Your task to perform on an android device: Go to privacy settings Image 0: 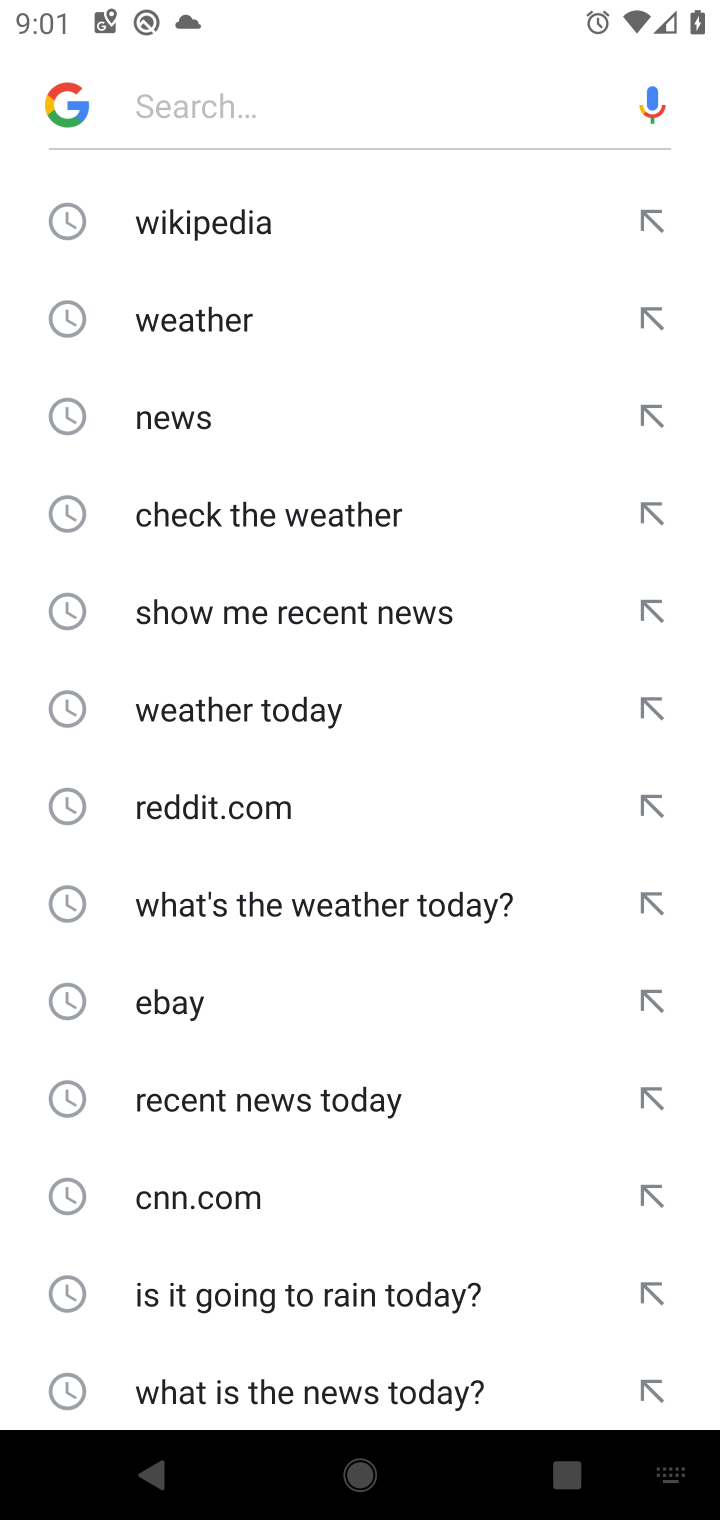
Step 0: press home button
Your task to perform on an android device: Go to privacy settings Image 1: 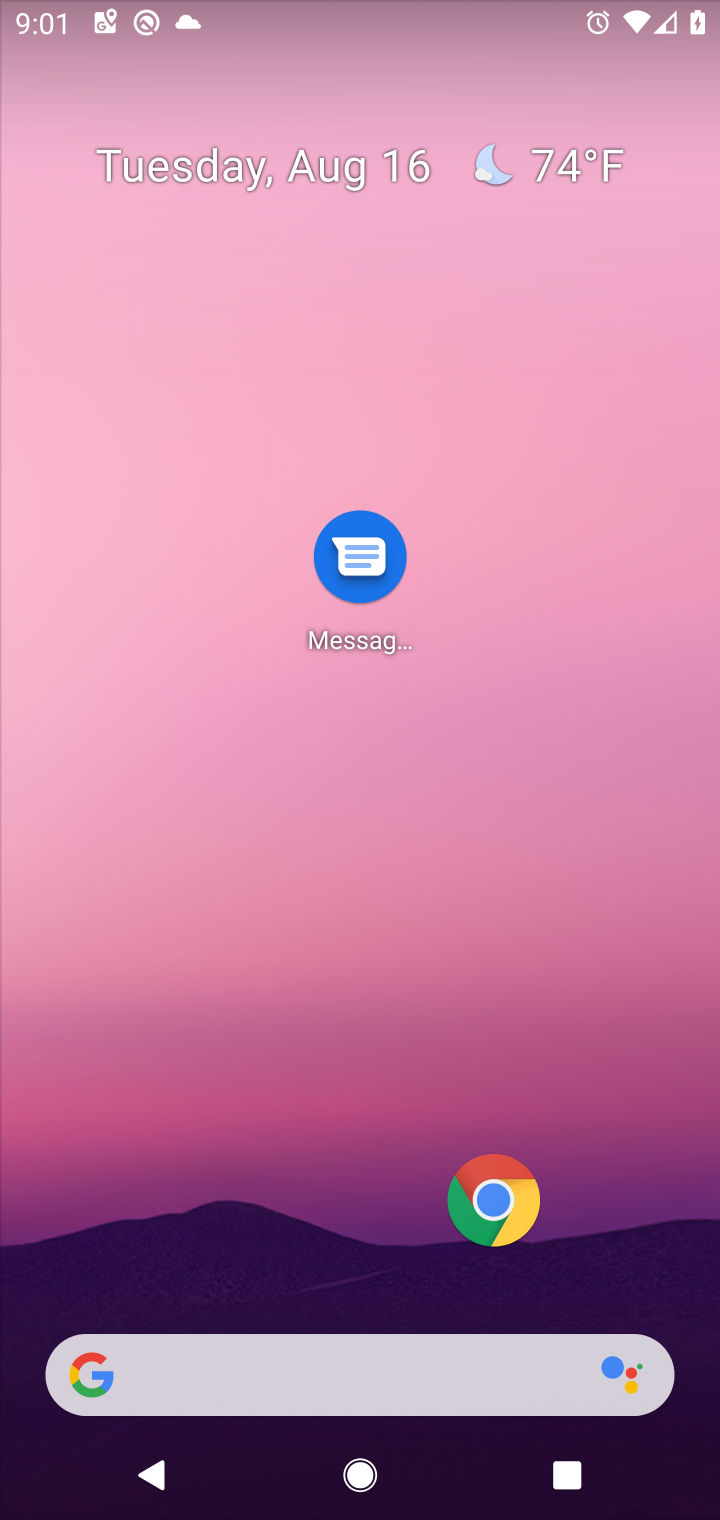
Step 1: drag from (130, 1270) to (369, 389)
Your task to perform on an android device: Go to privacy settings Image 2: 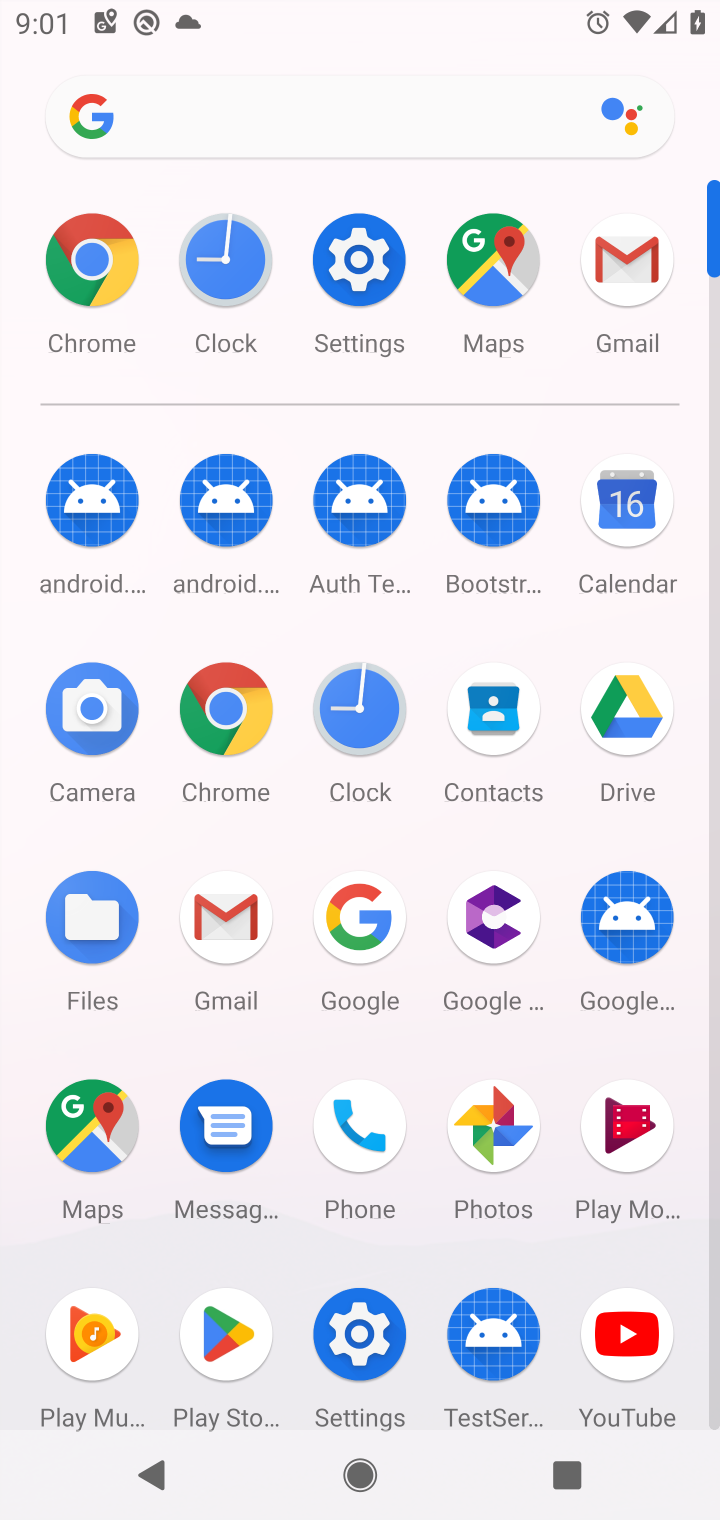
Step 2: click (346, 1351)
Your task to perform on an android device: Go to privacy settings Image 3: 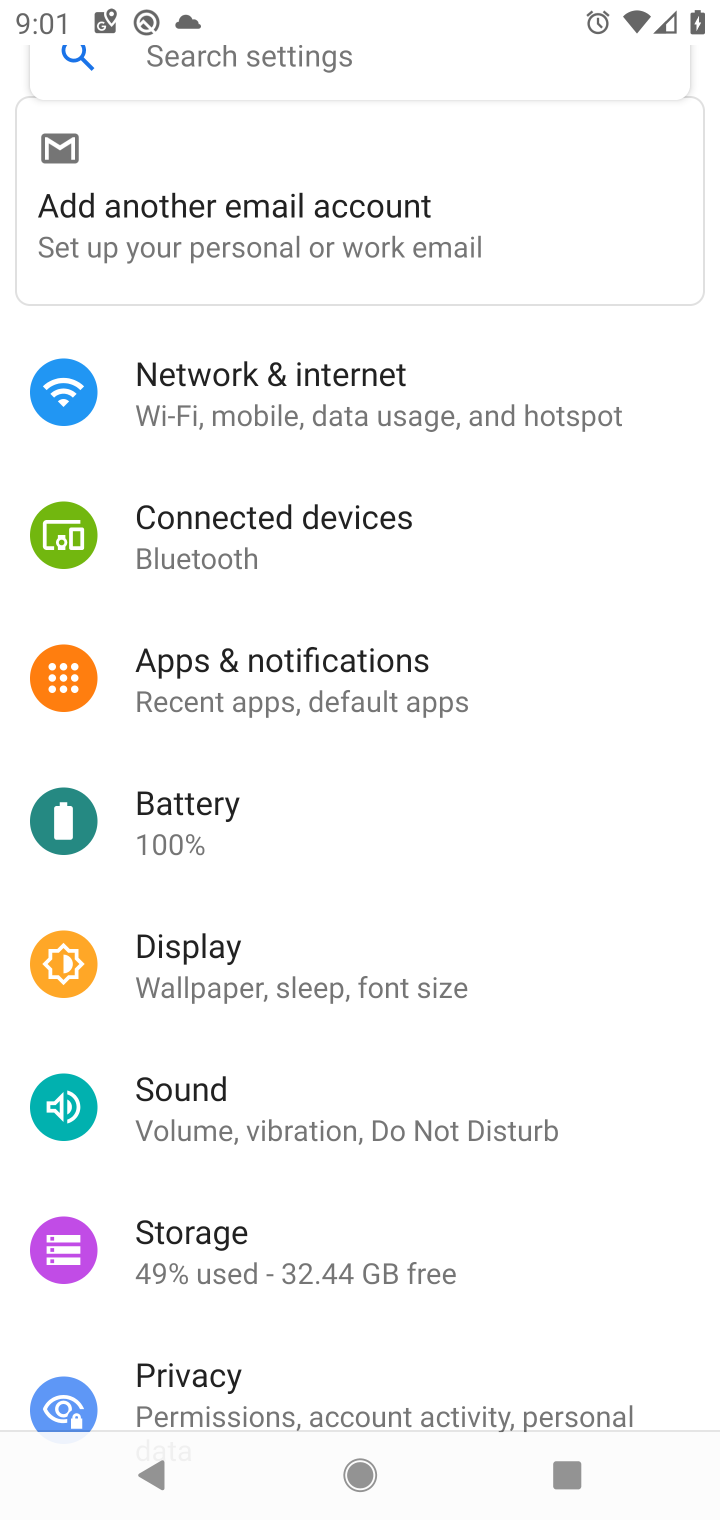
Step 3: click (224, 1395)
Your task to perform on an android device: Go to privacy settings Image 4: 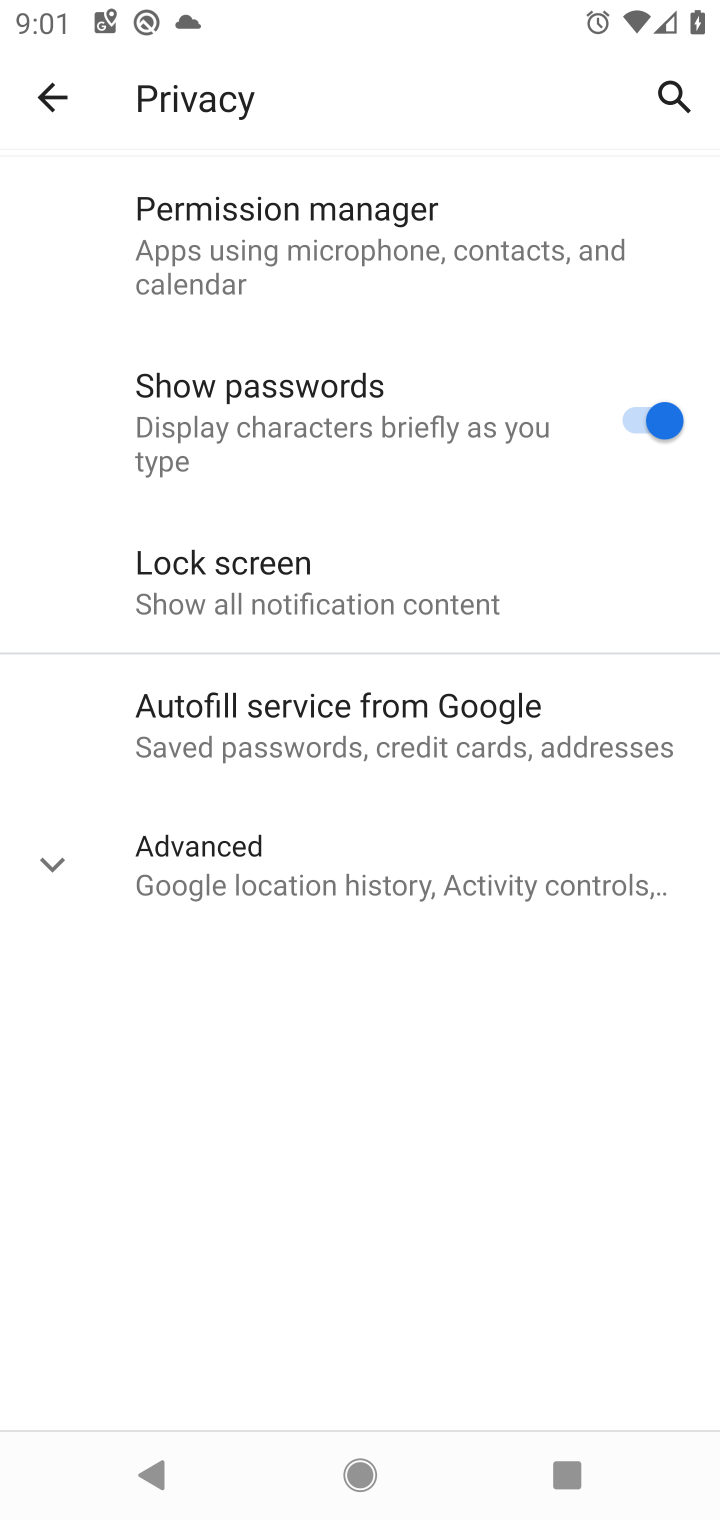
Step 4: task complete